Your task to perform on an android device: Search for Italian restaurants on Maps Image 0: 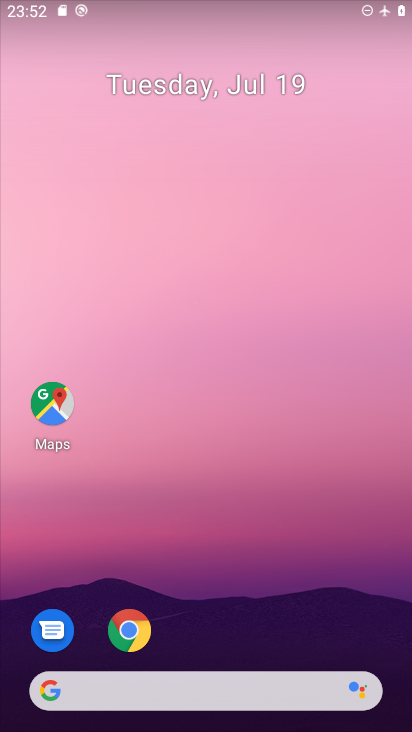
Step 0: click (42, 431)
Your task to perform on an android device: Search for Italian restaurants on Maps Image 1: 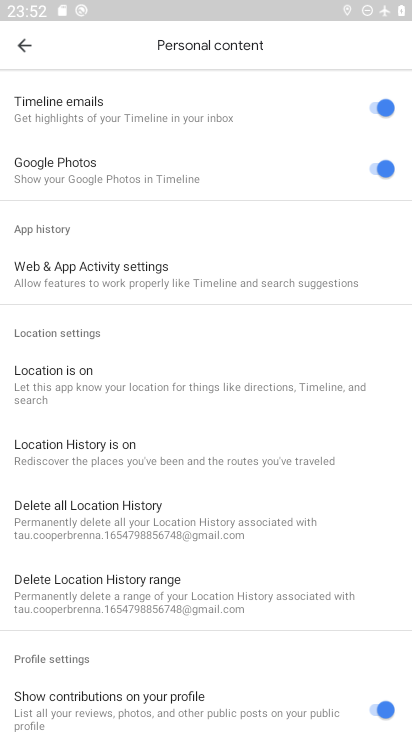
Step 1: press back button
Your task to perform on an android device: Search for Italian restaurants on Maps Image 2: 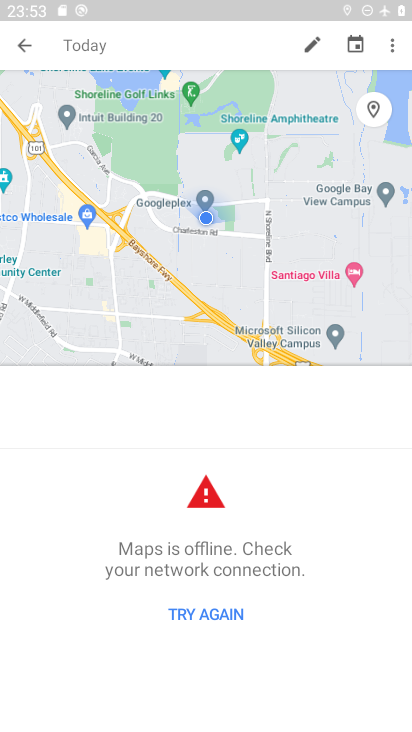
Step 2: click (15, 50)
Your task to perform on an android device: Search for Italian restaurants on Maps Image 3: 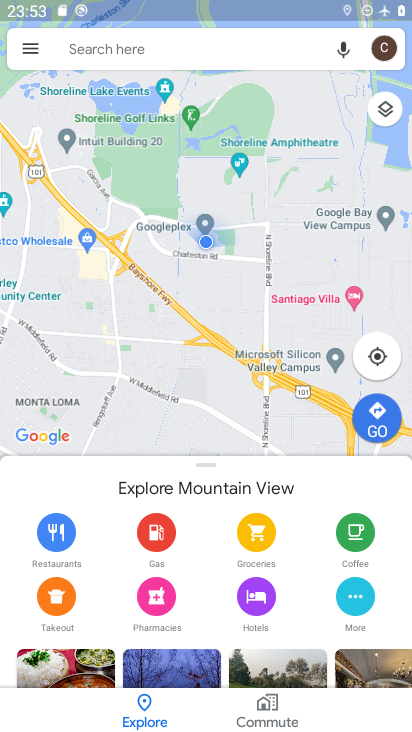
Step 3: click (92, 57)
Your task to perform on an android device: Search for Italian restaurants on Maps Image 4: 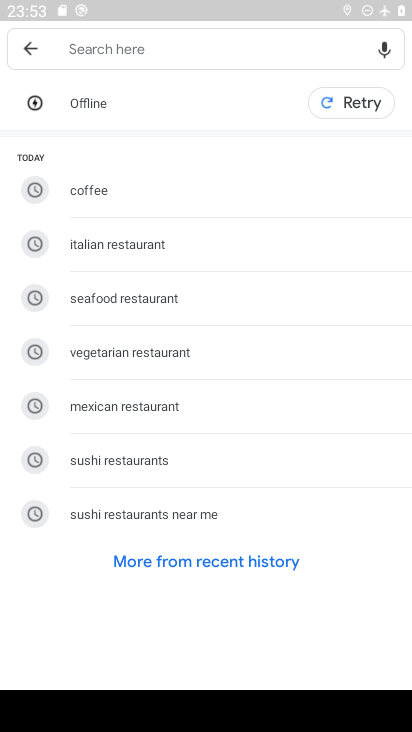
Step 4: type "Italian restaurants"
Your task to perform on an android device: Search for Italian restaurants on Maps Image 5: 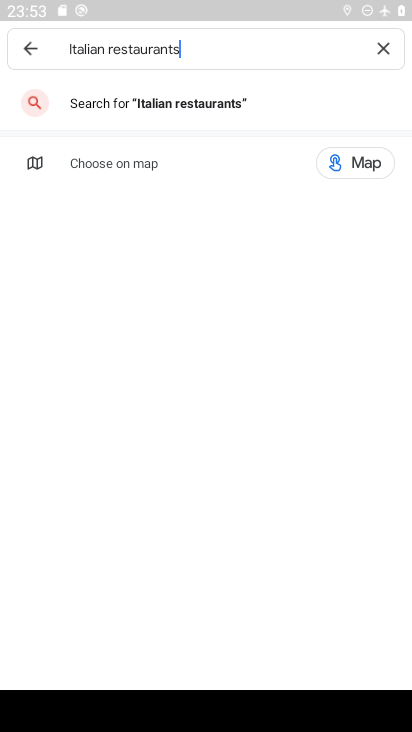
Step 5: click (251, 99)
Your task to perform on an android device: Search for Italian restaurants on Maps Image 6: 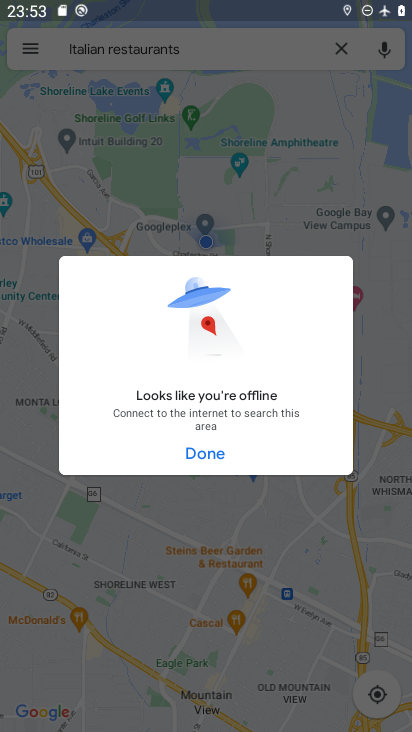
Step 6: task complete